Your task to perform on an android device: What's the weather going to be tomorrow? Image 0: 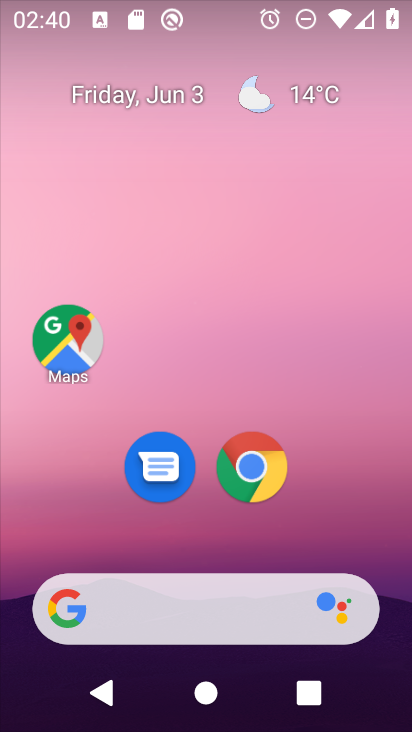
Step 0: click (304, 90)
Your task to perform on an android device: What's the weather going to be tomorrow? Image 1: 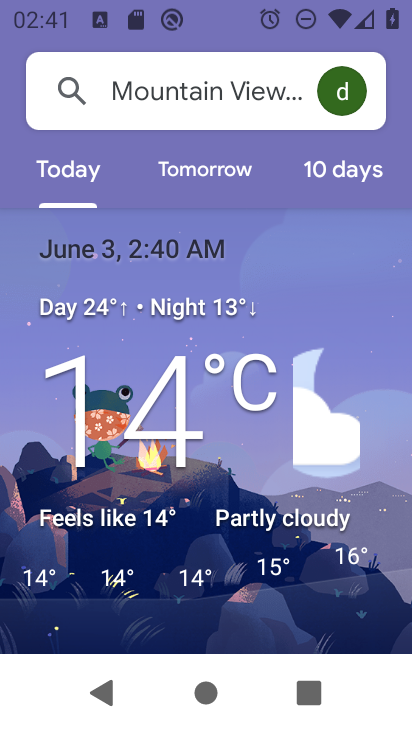
Step 1: click (225, 168)
Your task to perform on an android device: What's the weather going to be tomorrow? Image 2: 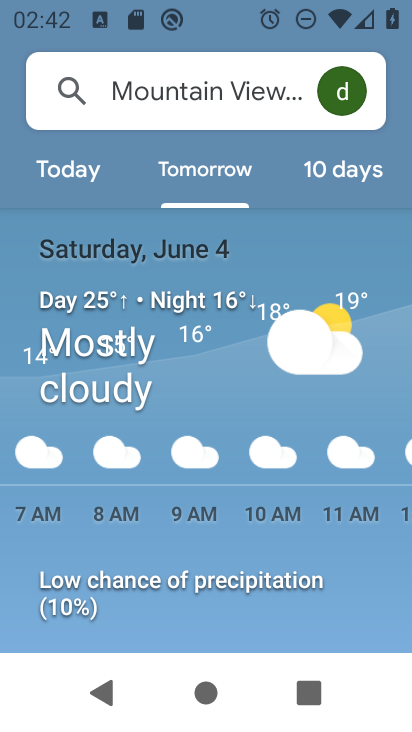
Step 2: task complete